Your task to perform on an android device: View the shopping cart on newegg.com. Add "asus zenbook" to the cart on newegg.com Image 0: 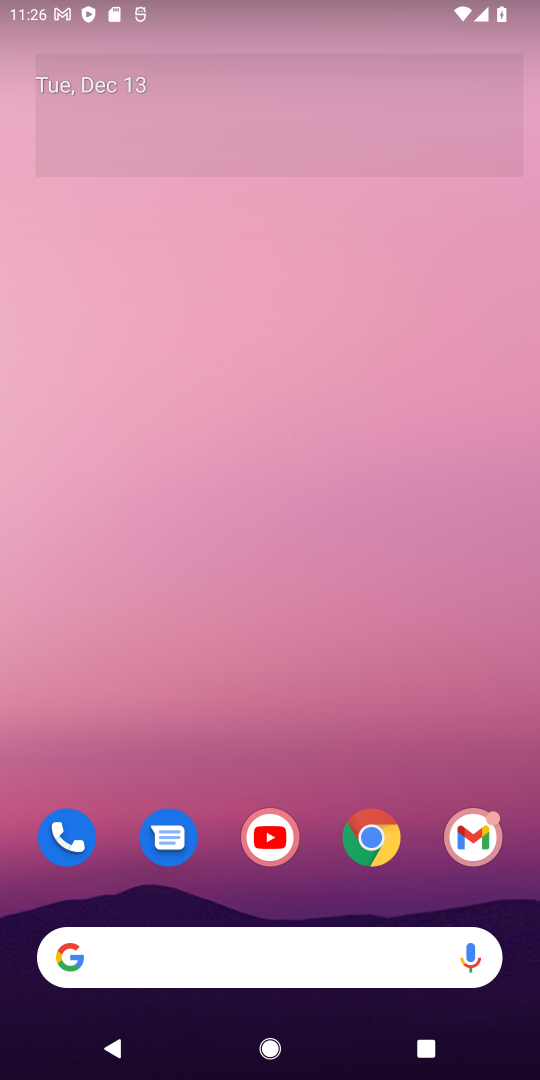
Step 0: click (318, 939)
Your task to perform on an android device: View the shopping cart on newegg.com. Add "asus zenbook" to the cart on newegg.com Image 1: 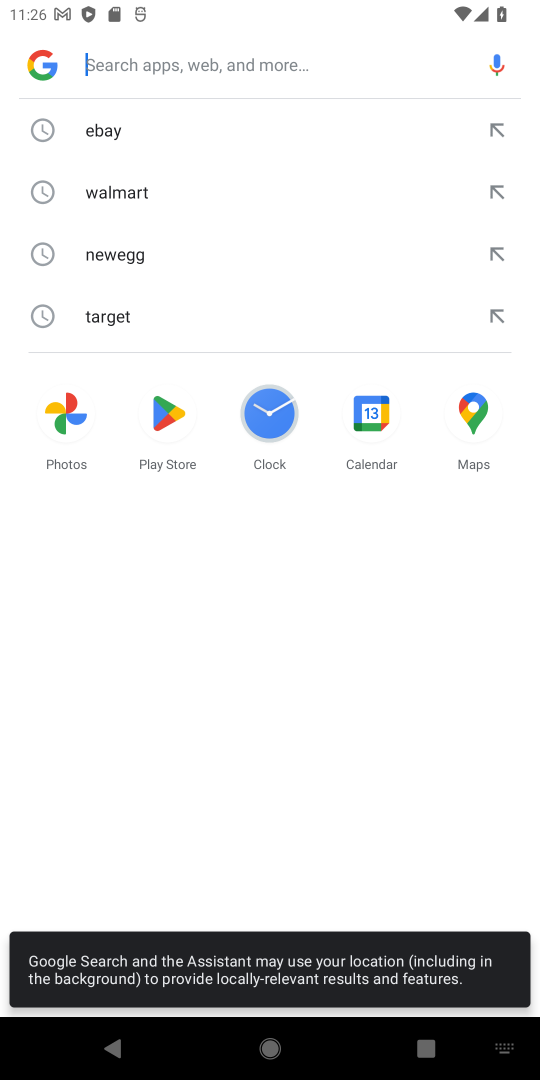
Step 1: click (172, 265)
Your task to perform on an android device: View the shopping cart on newegg.com. Add "asus zenbook" to the cart on newegg.com Image 2: 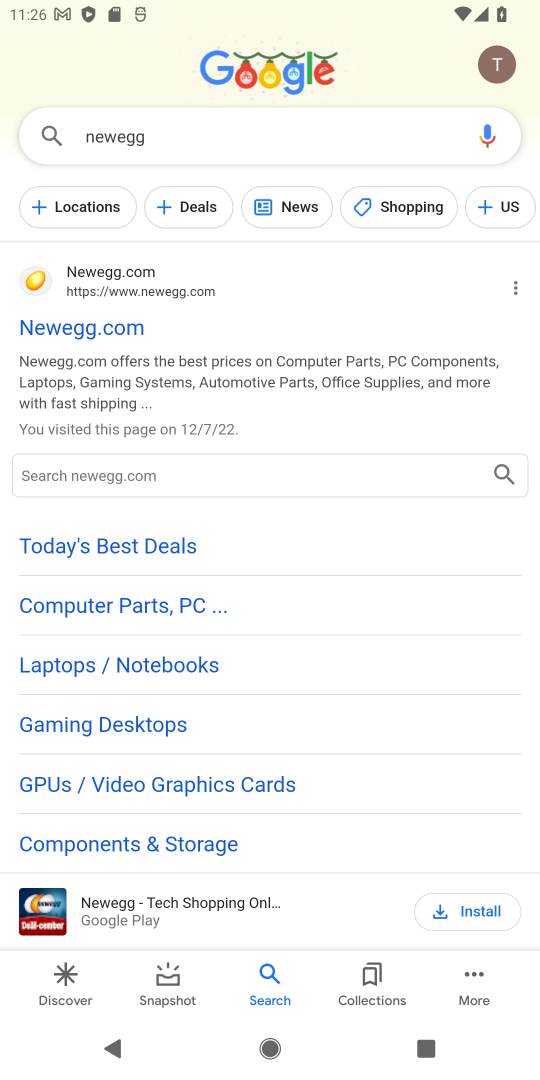
Step 2: click (66, 341)
Your task to perform on an android device: View the shopping cart on newegg.com. Add "asus zenbook" to the cart on newegg.com Image 3: 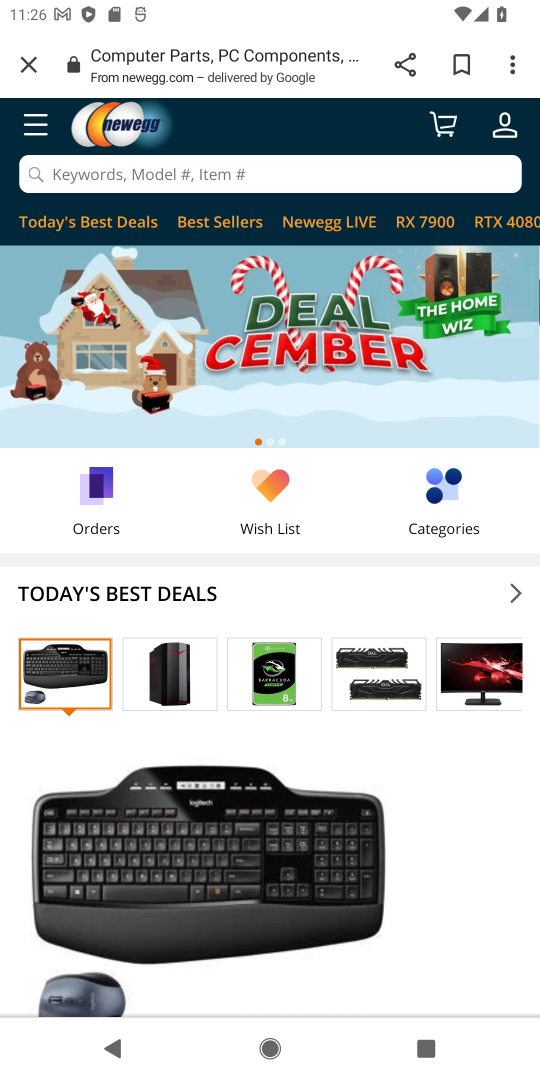
Step 3: click (212, 162)
Your task to perform on an android device: View the shopping cart on newegg.com. Add "asus zenbook" to the cart on newegg.com Image 4: 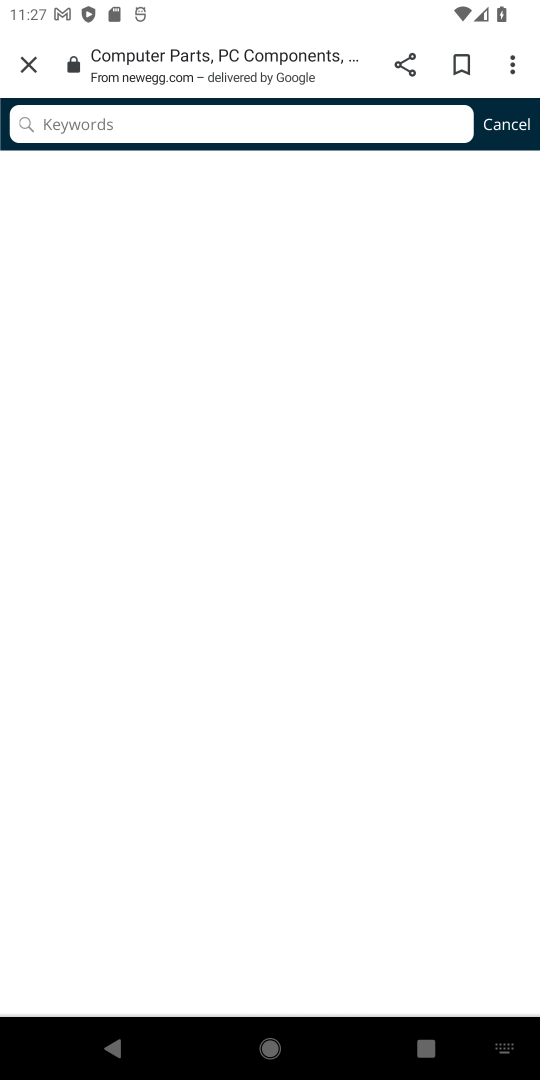
Step 4: type "asus zenbook"
Your task to perform on an android device: View the shopping cart on newegg.com. Add "asus zenbook" to the cart on newegg.com Image 5: 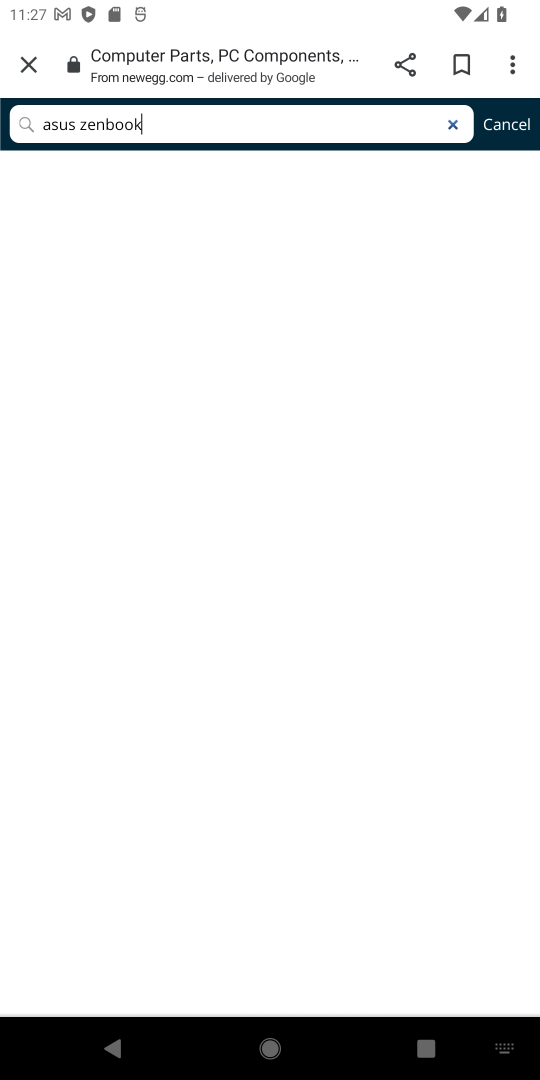
Step 5: click (330, 129)
Your task to perform on an android device: View the shopping cart on newegg.com. Add "asus zenbook" to the cart on newegg.com Image 6: 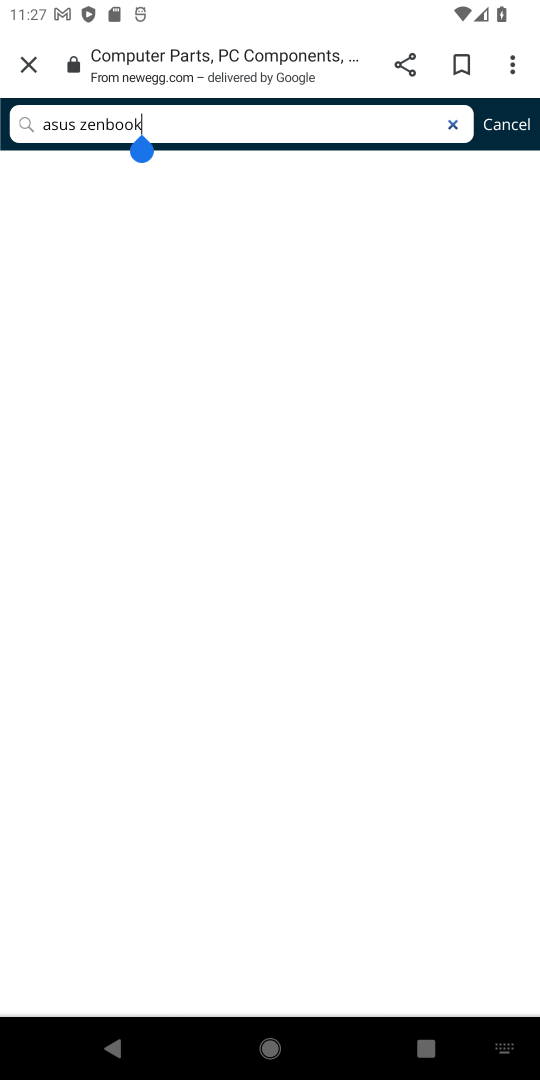
Step 6: task complete